Your task to perform on an android device: Go to eBay Image 0: 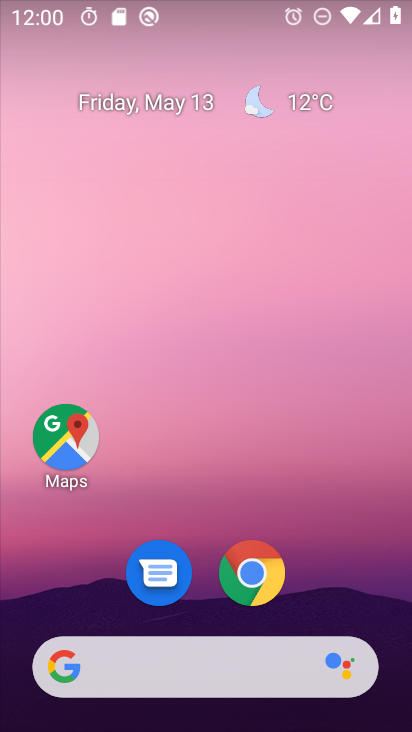
Step 0: click (252, 570)
Your task to perform on an android device: Go to eBay Image 1: 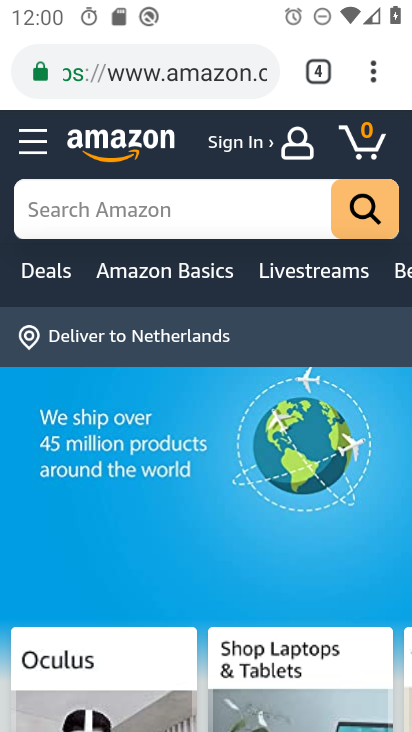
Step 1: click (135, 214)
Your task to perform on an android device: Go to eBay Image 2: 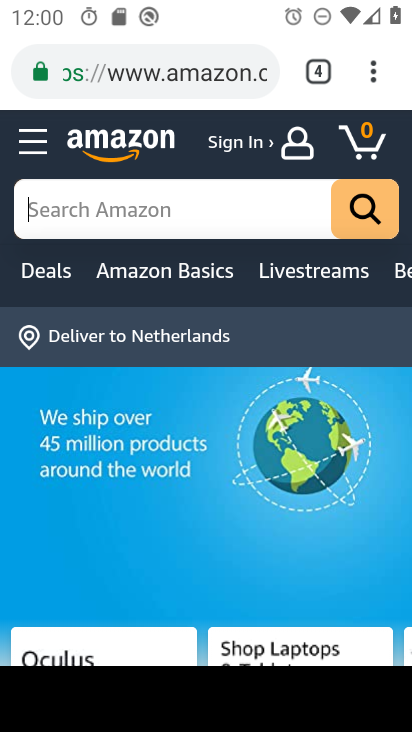
Step 2: click (272, 72)
Your task to perform on an android device: Go to eBay Image 3: 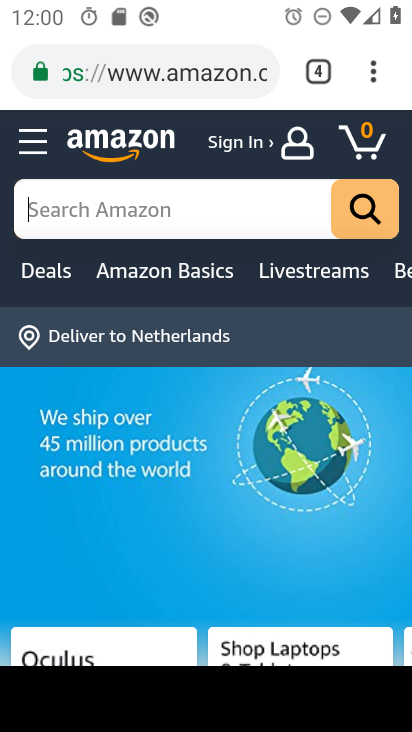
Step 3: click (268, 66)
Your task to perform on an android device: Go to eBay Image 4: 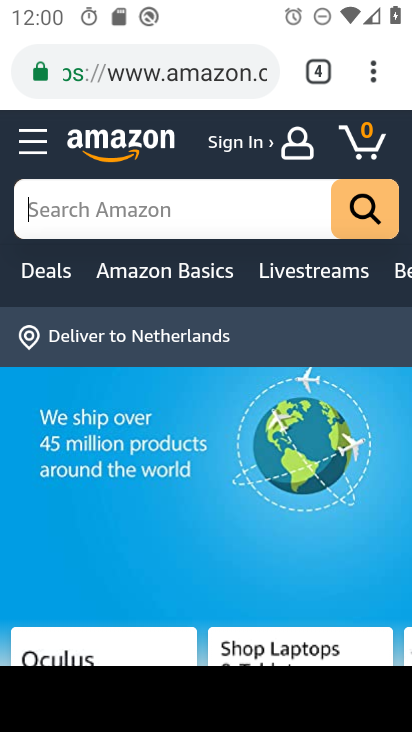
Step 4: click (266, 73)
Your task to perform on an android device: Go to eBay Image 5: 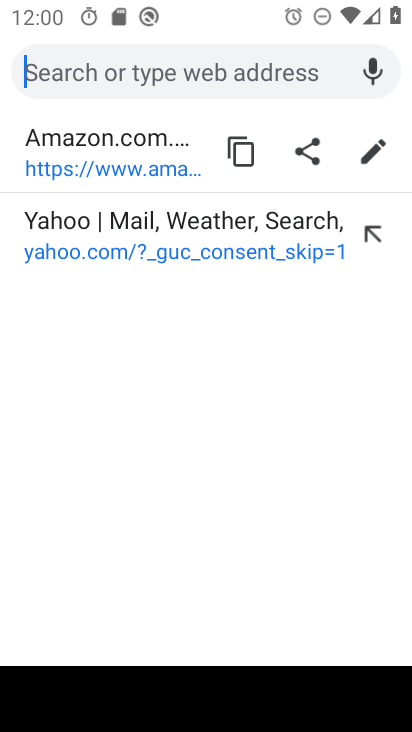
Step 5: type "eBay"
Your task to perform on an android device: Go to eBay Image 6: 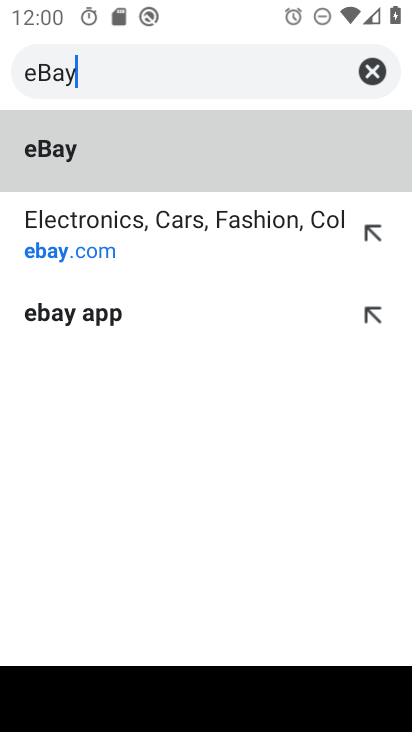
Step 6: click (44, 145)
Your task to perform on an android device: Go to eBay Image 7: 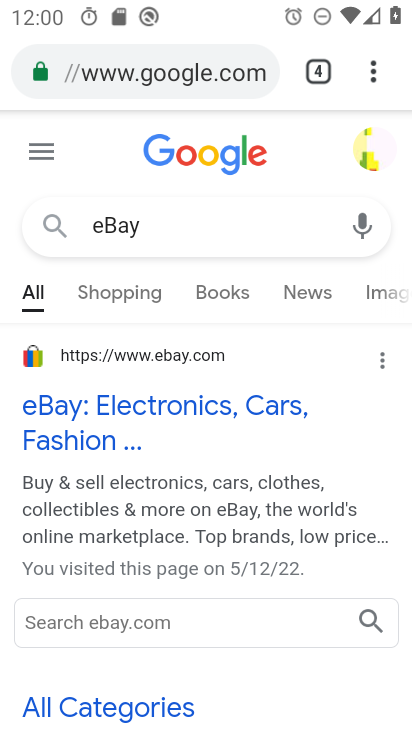
Step 7: task complete